Your task to perform on an android device: delete location history Image 0: 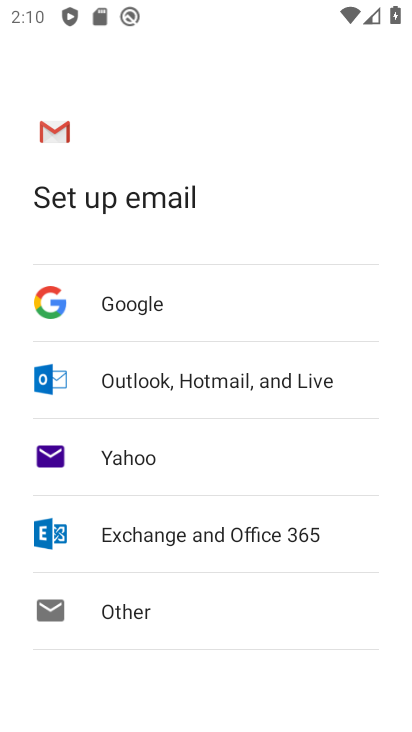
Step 0: press home button
Your task to perform on an android device: delete location history Image 1: 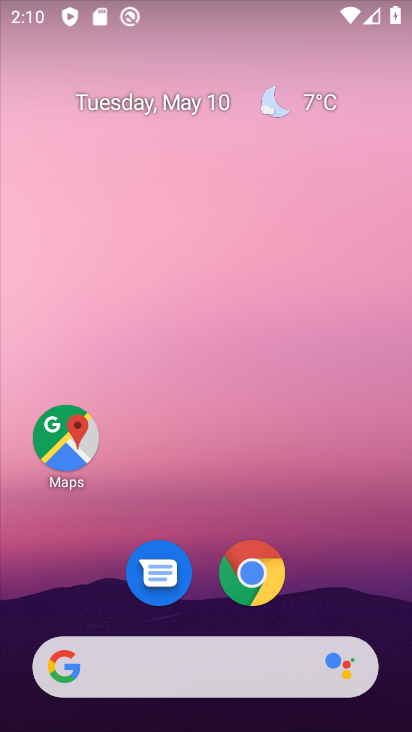
Step 1: click (53, 434)
Your task to perform on an android device: delete location history Image 2: 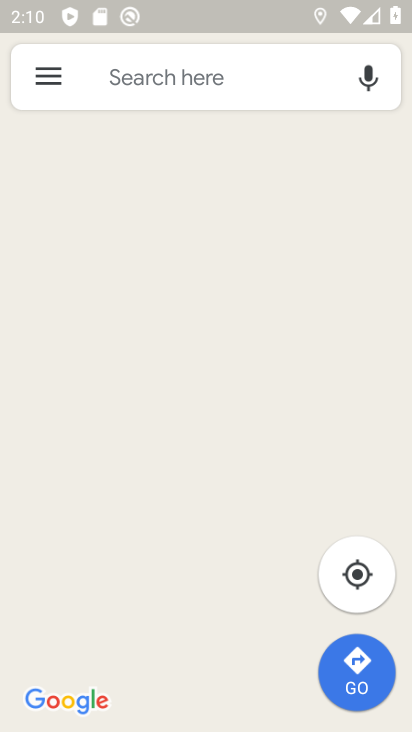
Step 2: click (48, 75)
Your task to perform on an android device: delete location history Image 3: 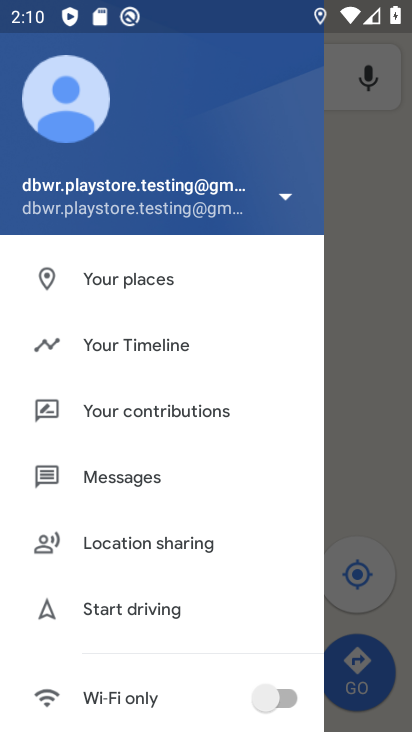
Step 3: click (146, 338)
Your task to perform on an android device: delete location history Image 4: 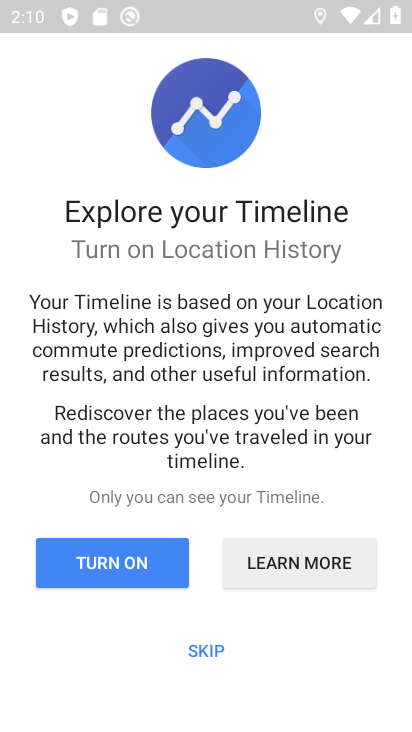
Step 4: click (217, 645)
Your task to perform on an android device: delete location history Image 5: 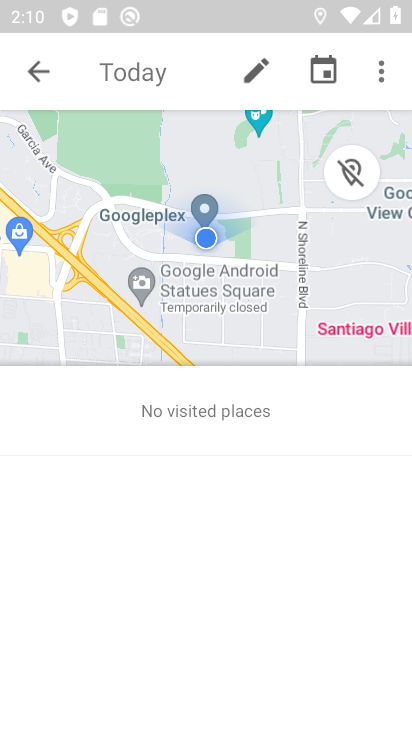
Step 5: click (378, 75)
Your task to perform on an android device: delete location history Image 6: 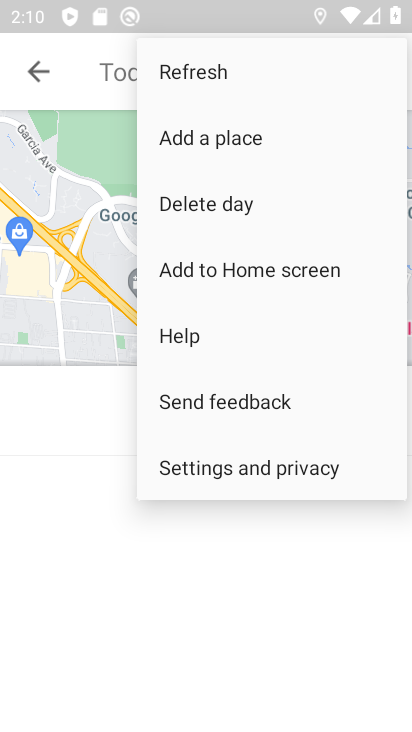
Step 6: click (285, 461)
Your task to perform on an android device: delete location history Image 7: 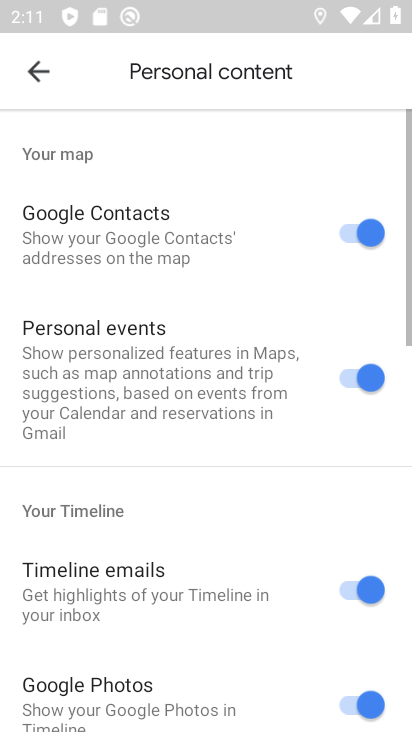
Step 7: drag from (251, 659) to (251, 162)
Your task to perform on an android device: delete location history Image 8: 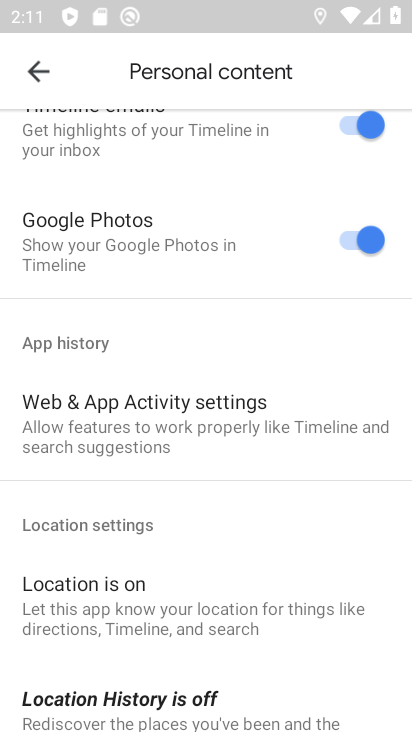
Step 8: drag from (221, 661) to (189, 216)
Your task to perform on an android device: delete location history Image 9: 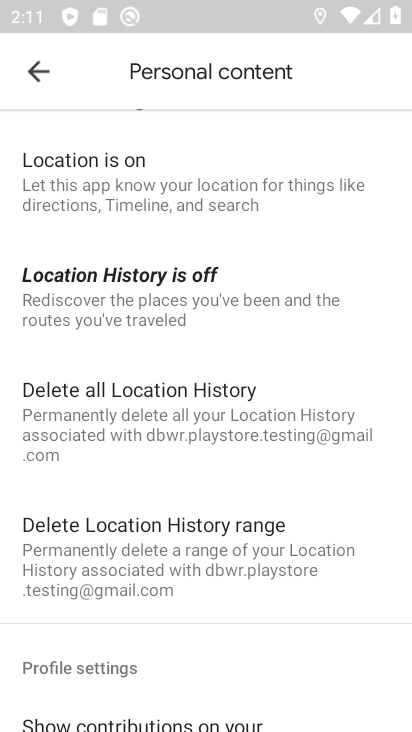
Step 9: click (188, 399)
Your task to perform on an android device: delete location history Image 10: 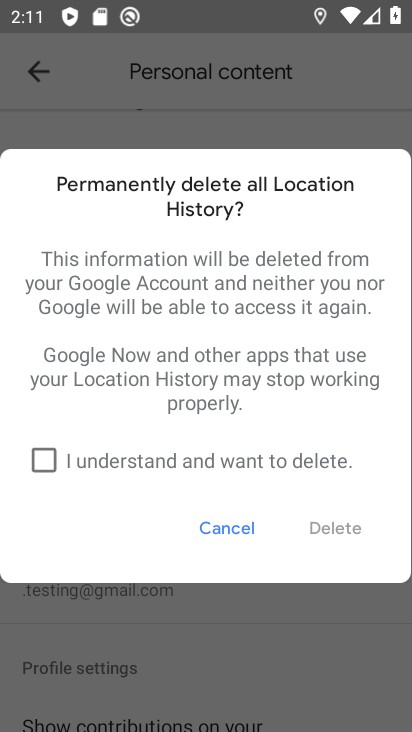
Step 10: click (49, 457)
Your task to perform on an android device: delete location history Image 11: 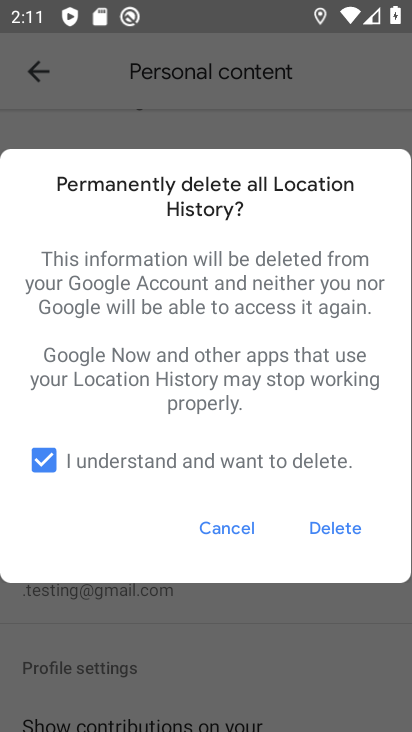
Step 11: click (328, 525)
Your task to perform on an android device: delete location history Image 12: 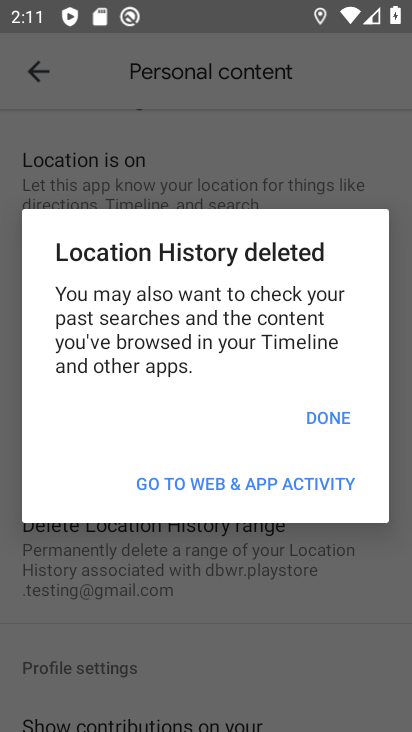
Step 12: click (337, 410)
Your task to perform on an android device: delete location history Image 13: 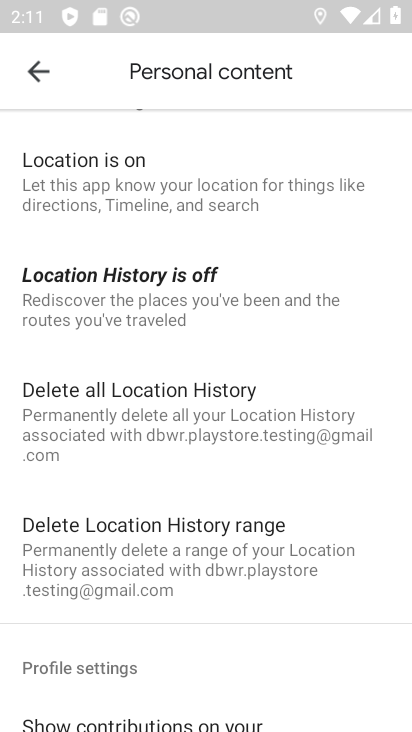
Step 13: task complete